Your task to perform on an android device: Open Amazon Image 0: 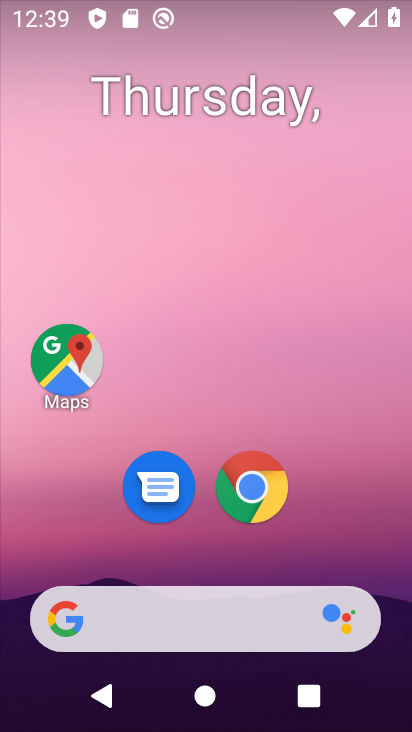
Step 0: click (285, 445)
Your task to perform on an android device: Open Amazon Image 1: 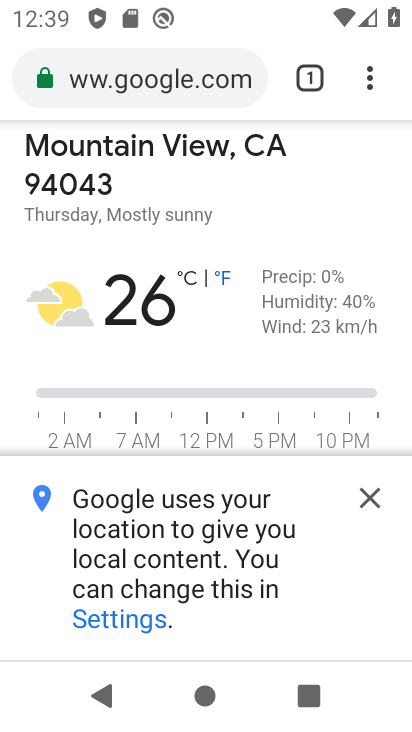
Step 1: click (132, 94)
Your task to perform on an android device: Open Amazon Image 2: 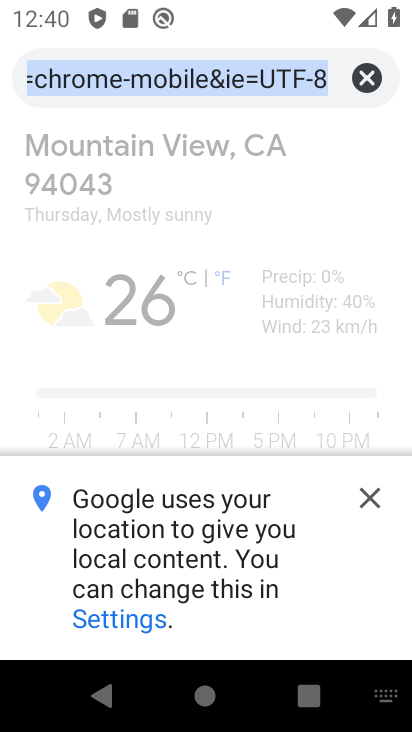
Step 2: click (374, 62)
Your task to perform on an android device: Open Amazon Image 3: 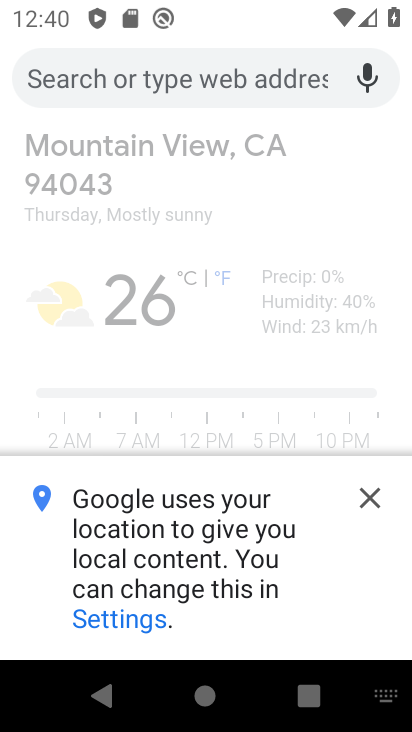
Step 3: type "Amazon"
Your task to perform on an android device: Open Amazon Image 4: 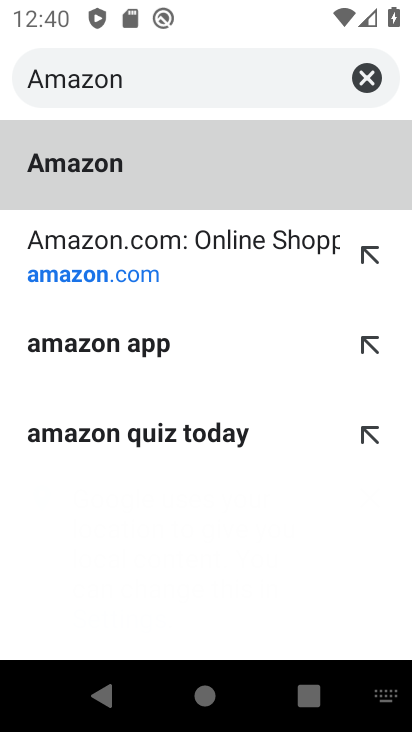
Step 4: click (150, 163)
Your task to perform on an android device: Open Amazon Image 5: 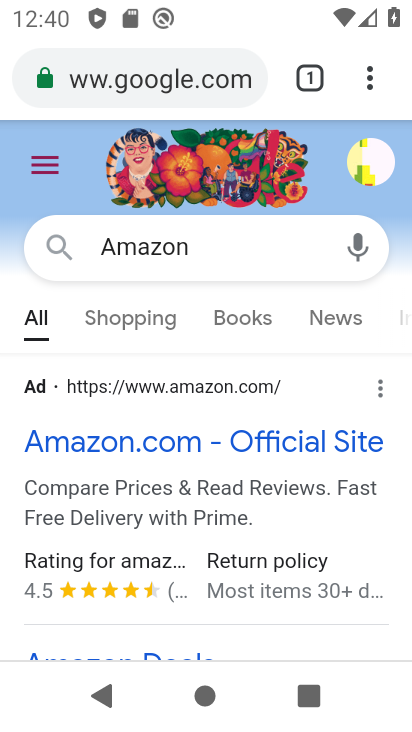
Step 5: click (382, 425)
Your task to perform on an android device: Open Amazon Image 6: 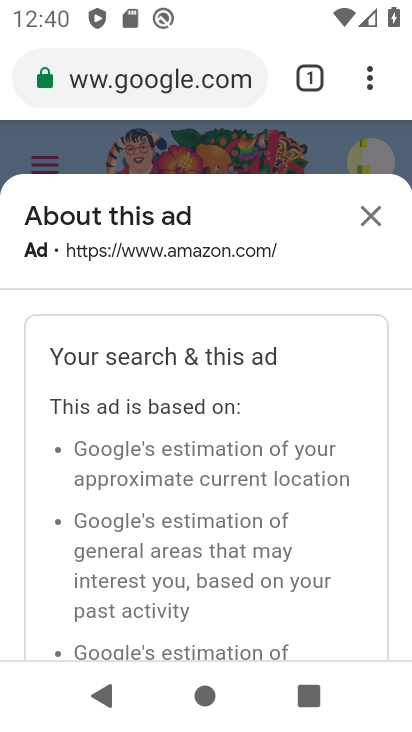
Step 6: click (368, 221)
Your task to perform on an android device: Open Amazon Image 7: 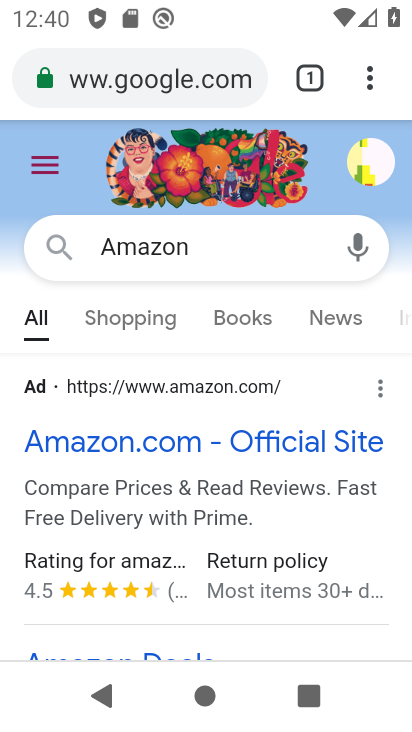
Step 7: click (130, 451)
Your task to perform on an android device: Open Amazon Image 8: 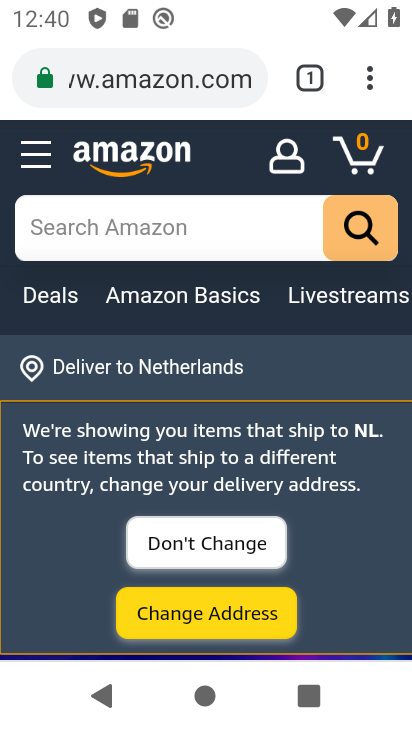
Step 8: task complete